Your task to perform on an android device: How do I get to the nearest Chipotle? Image 0: 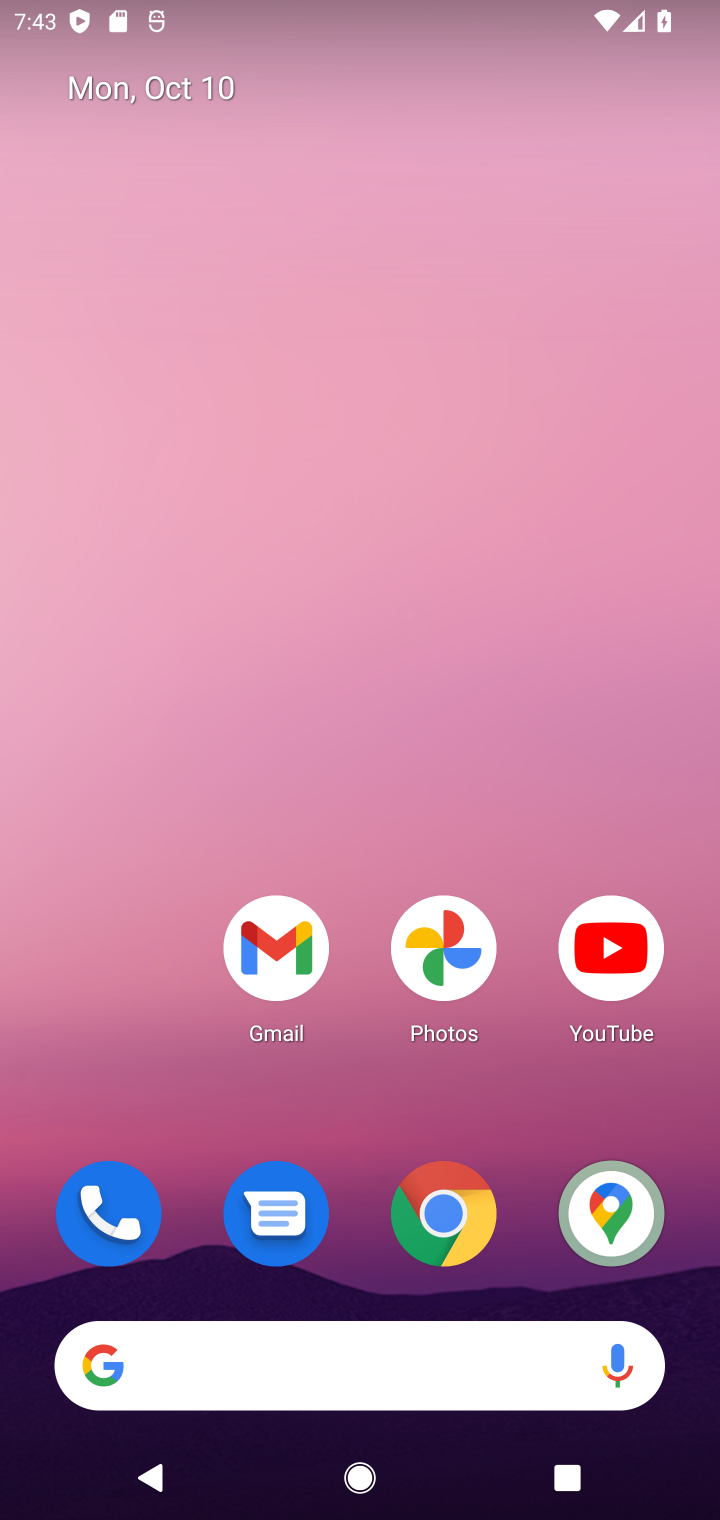
Step 0: click (317, 1367)
Your task to perform on an android device: How do I get to the nearest Chipotle? Image 1: 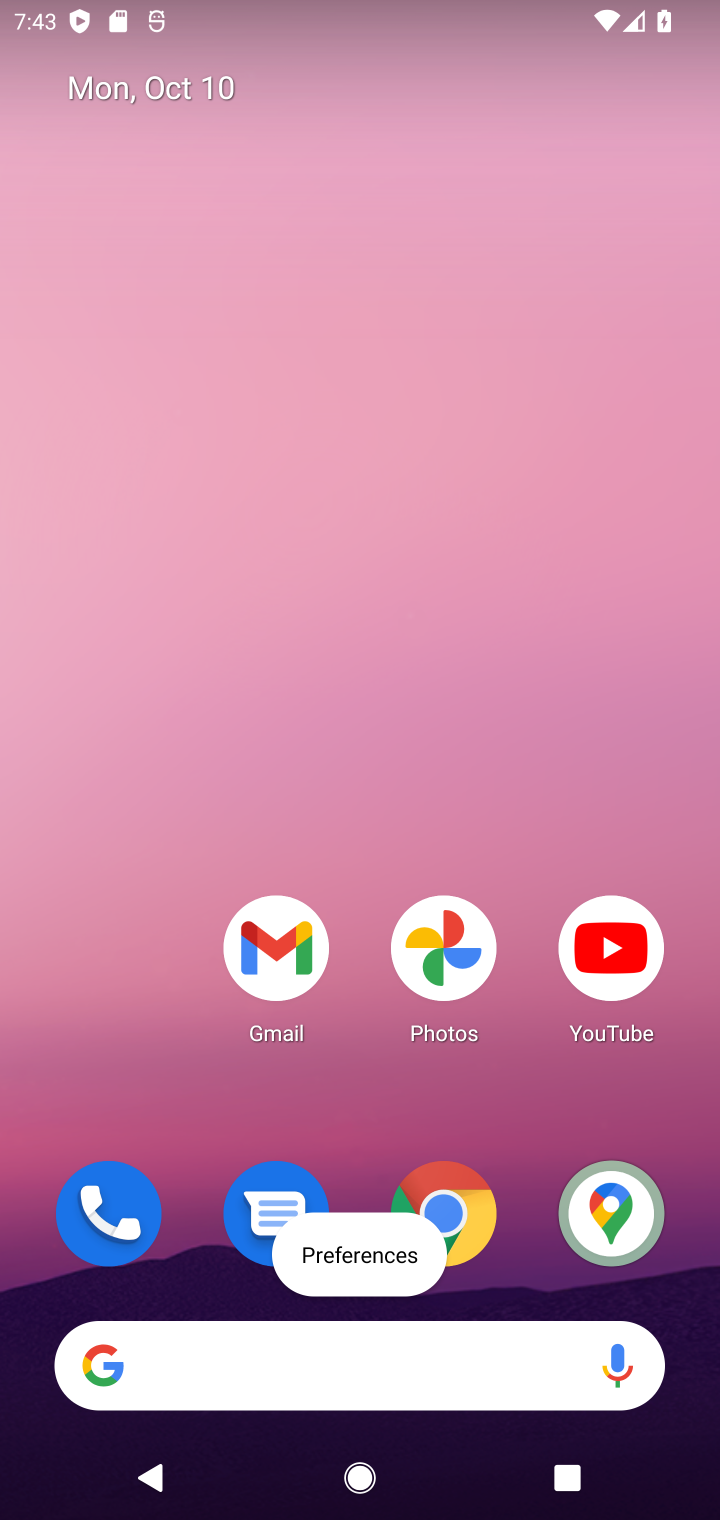
Step 1: type "How do I get to the nearest Chipotle?"
Your task to perform on an android device: How do I get to the nearest Chipotle? Image 2: 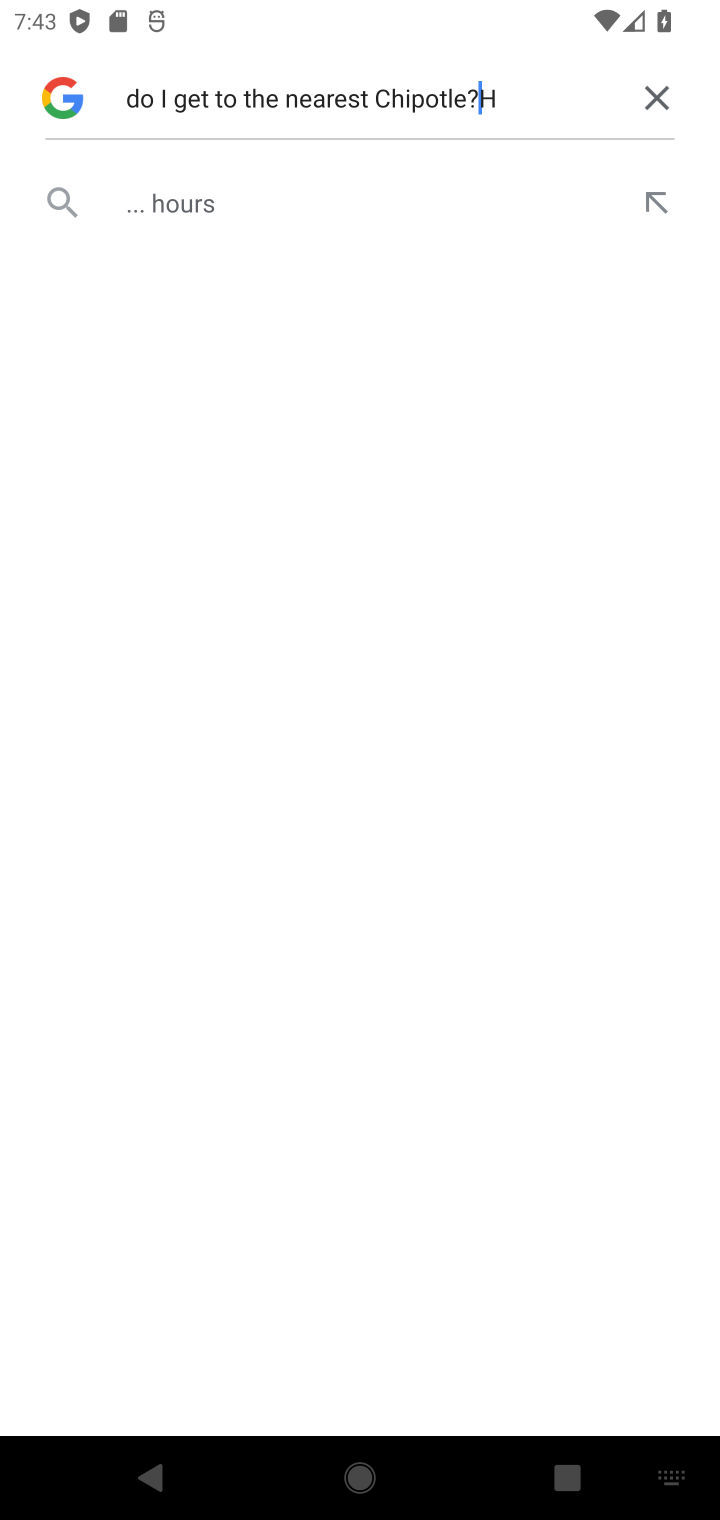
Step 2: click (664, 81)
Your task to perform on an android device: How do I get to the nearest Chipotle? Image 3: 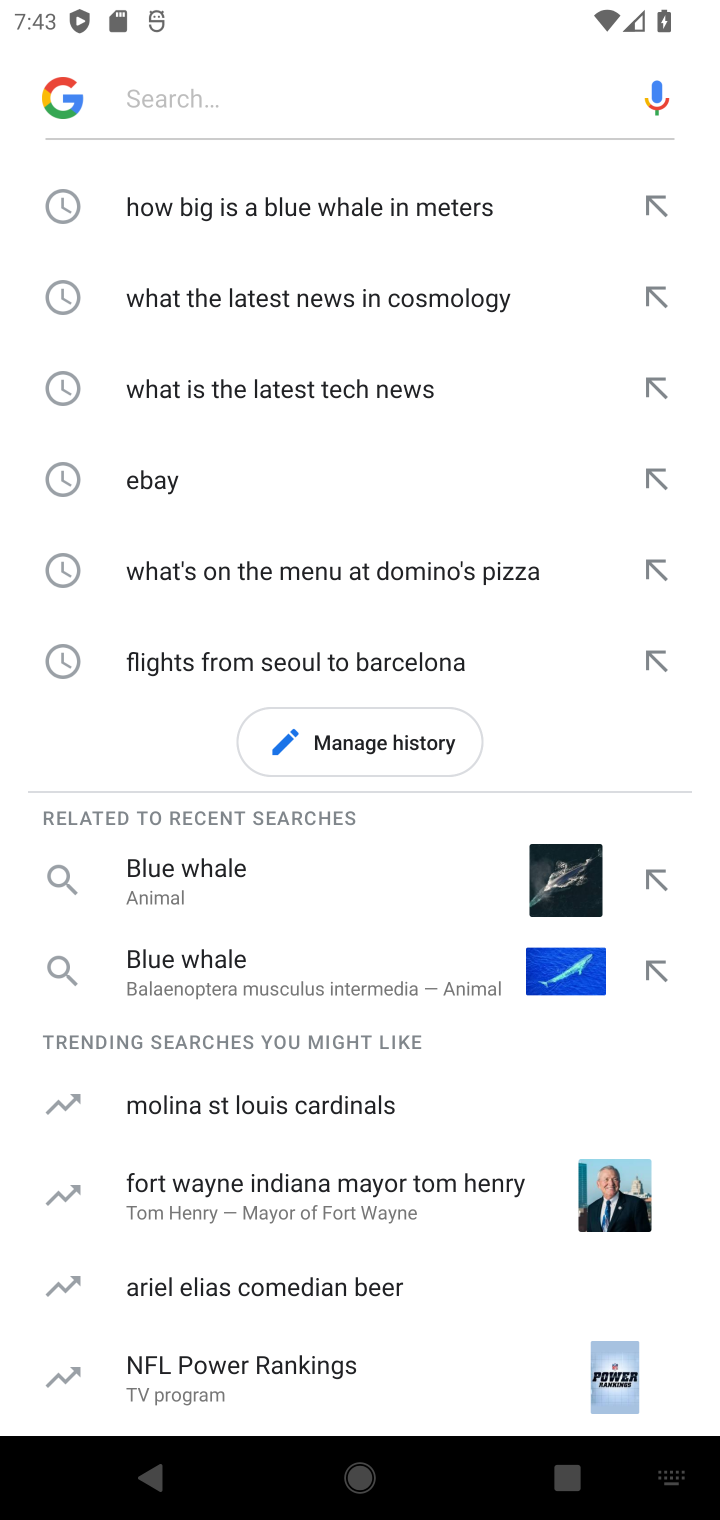
Step 3: click (174, 116)
Your task to perform on an android device: How do I get to the nearest Chipotle? Image 4: 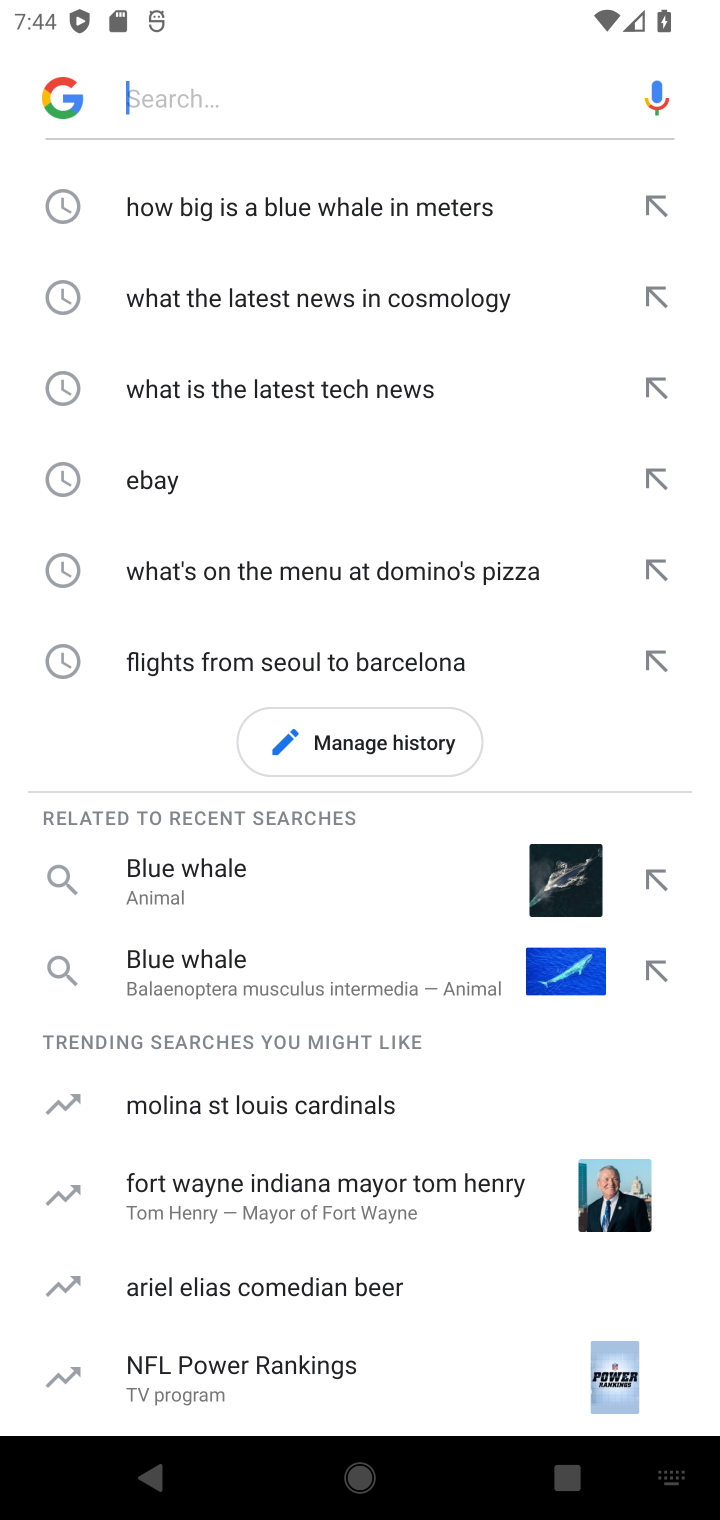
Step 4: type "How do I get to the nearest Chipotle?"
Your task to perform on an android device: How do I get to the nearest Chipotle? Image 5: 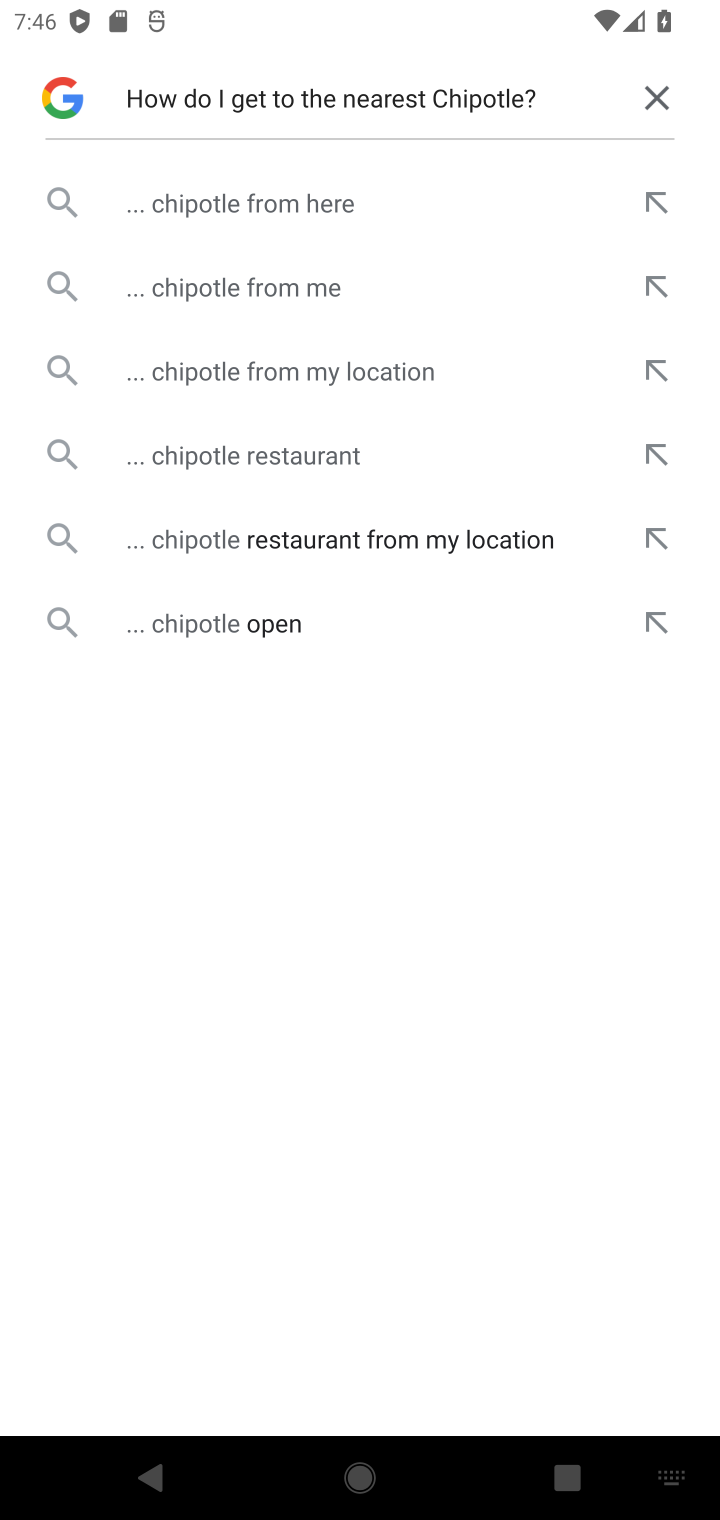
Step 5: click (284, 211)
Your task to perform on an android device: How do I get to the nearest Chipotle? Image 6: 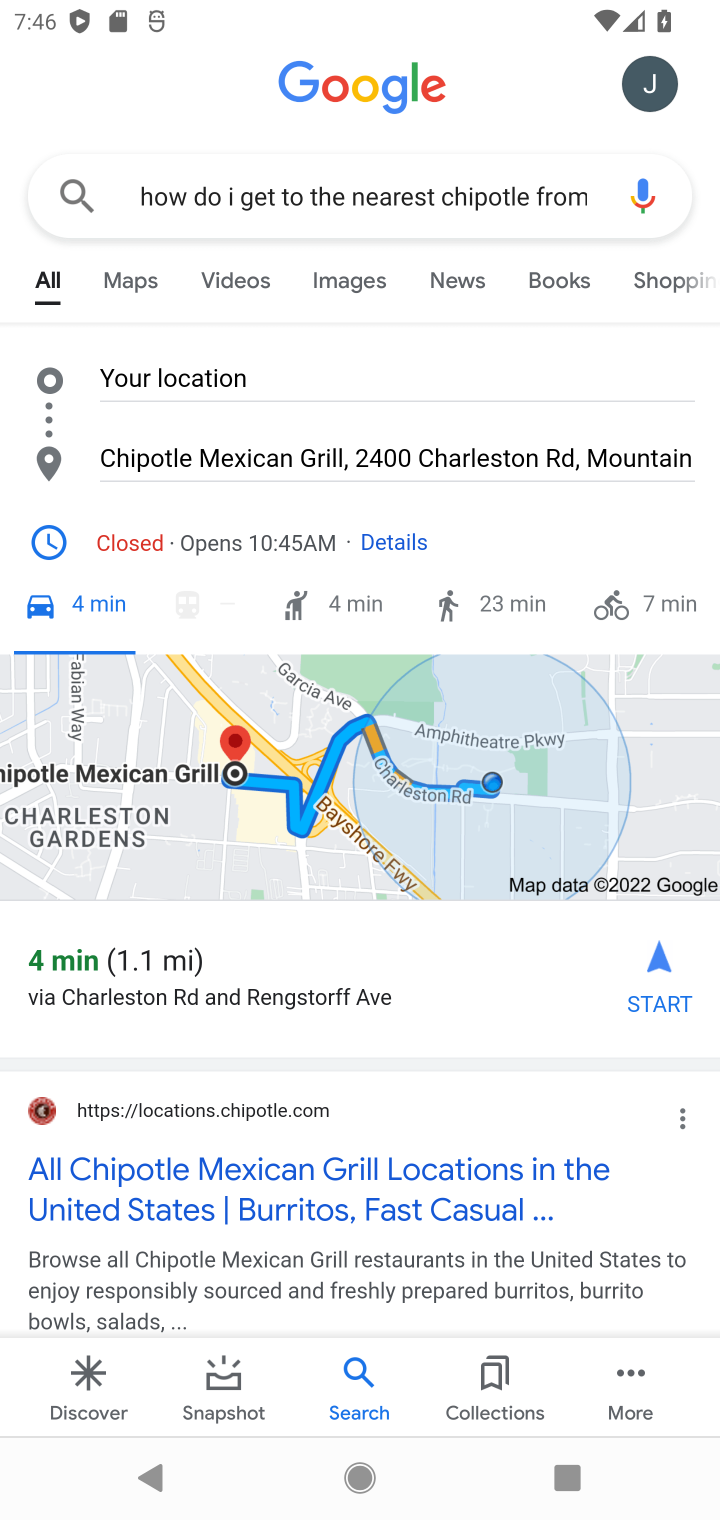
Step 6: task complete